Your task to perform on an android device: Open Google Image 0: 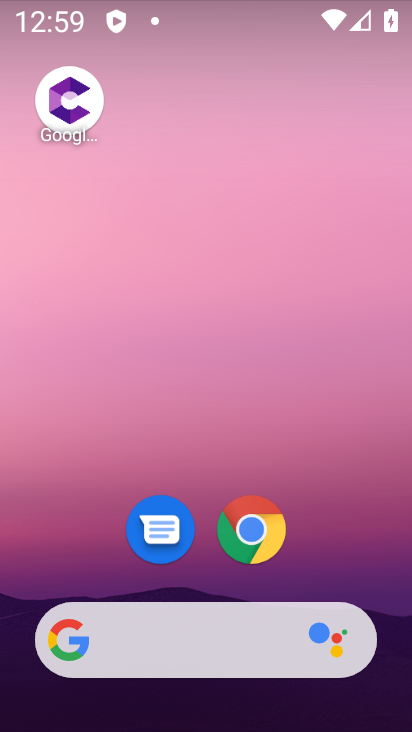
Step 0: drag from (201, 395) to (209, 7)
Your task to perform on an android device: Open Google Image 1: 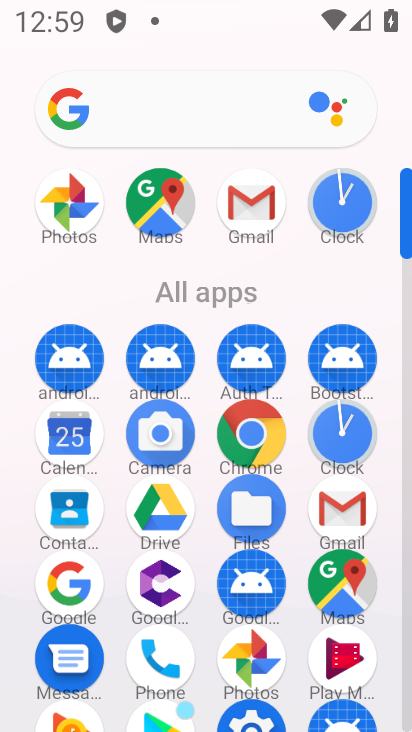
Step 1: click (69, 586)
Your task to perform on an android device: Open Google Image 2: 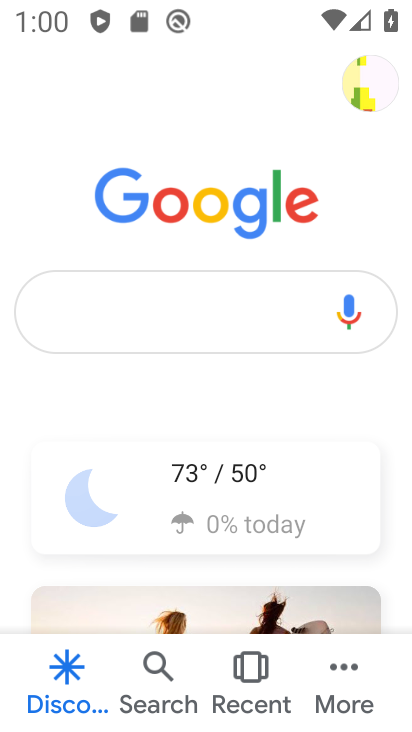
Step 2: press home button
Your task to perform on an android device: Open Google Image 3: 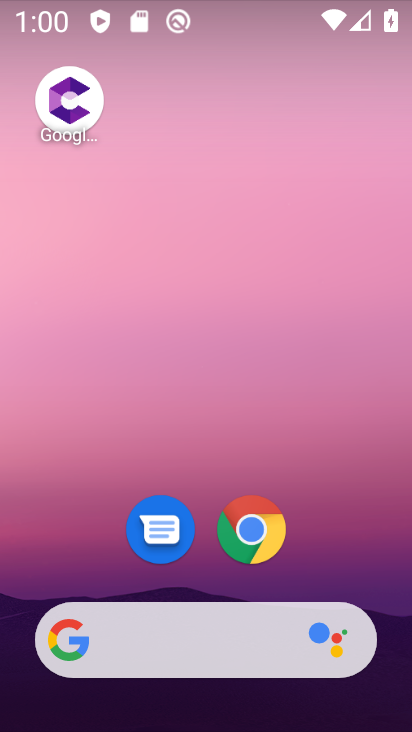
Step 3: drag from (172, 374) to (249, 59)
Your task to perform on an android device: Open Google Image 4: 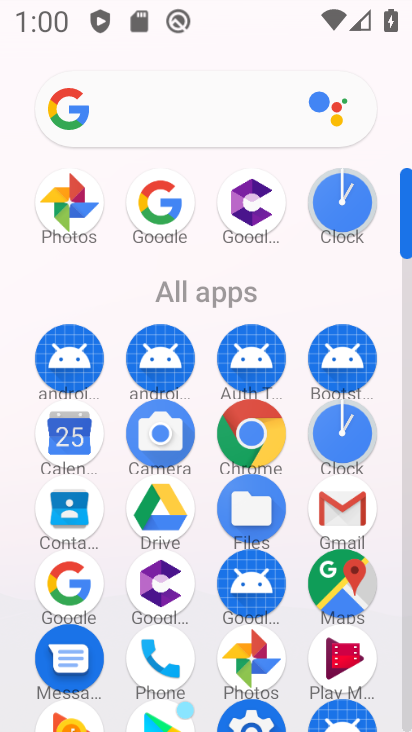
Step 4: click (165, 204)
Your task to perform on an android device: Open Google Image 5: 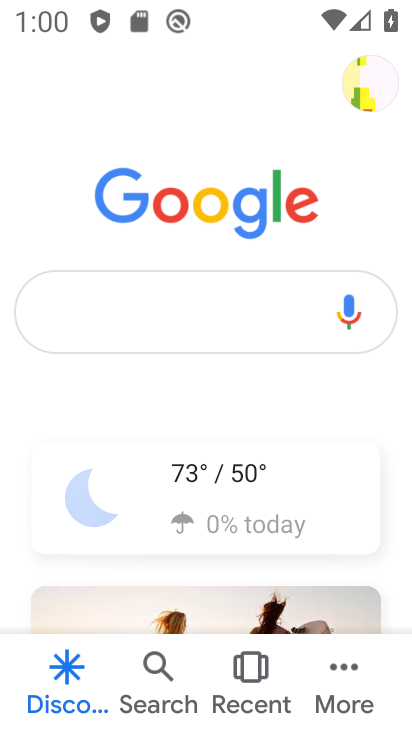
Step 5: task complete